Your task to perform on an android device: open sync settings in chrome Image 0: 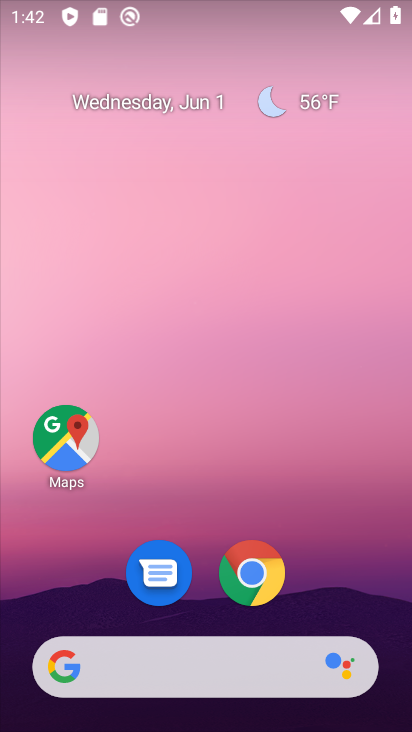
Step 0: drag from (352, 598) to (241, 0)
Your task to perform on an android device: open sync settings in chrome Image 1: 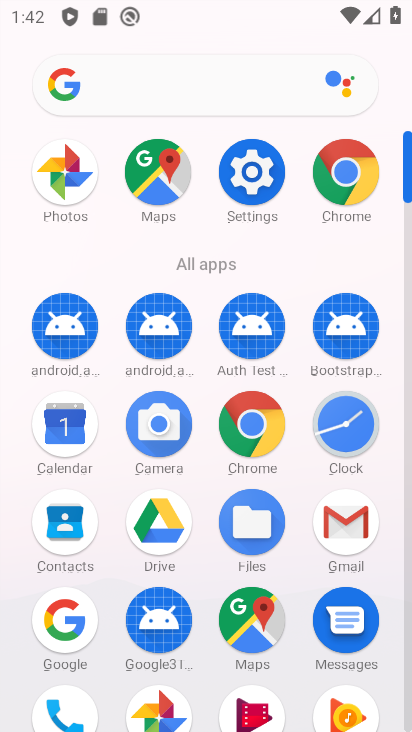
Step 1: click (343, 187)
Your task to perform on an android device: open sync settings in chrome Image 2: 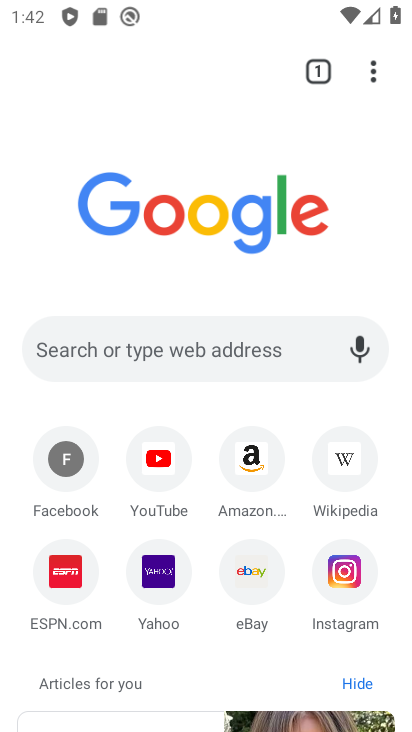
Step 2: drag from (376, 68) to (191, 616)
Your task to perform on an android device: open sync settings in chrome Image 3: 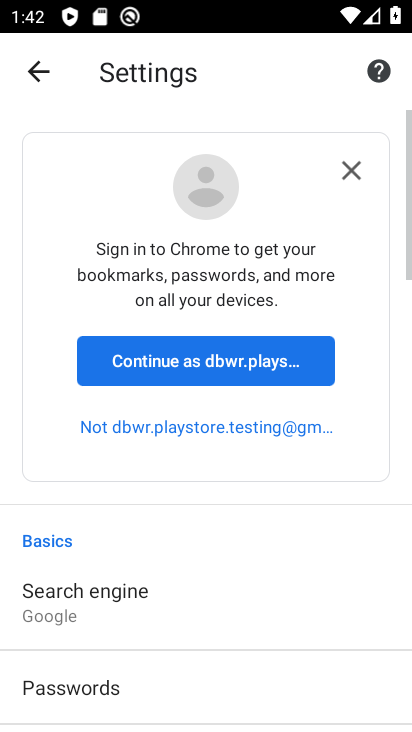
Step 3: drag from (191, 614) to (126, 170)
Your task to perform on an android device: open sync settings in chrome Image 4: 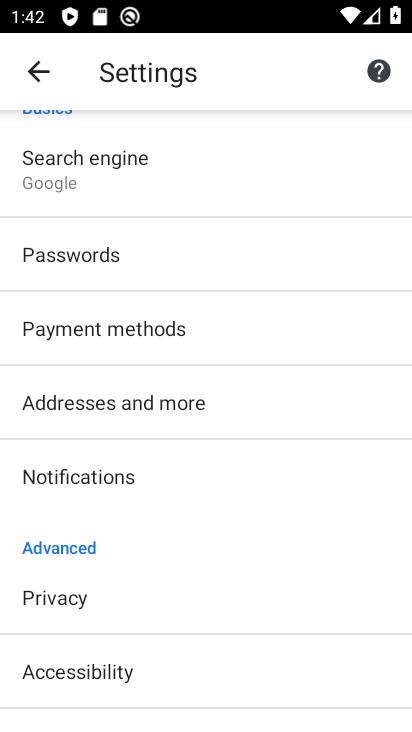
Step 4: drag from (187, 635) to (127, 173)
Your task to perform on an android device: open sync settings in chrome Image 5: 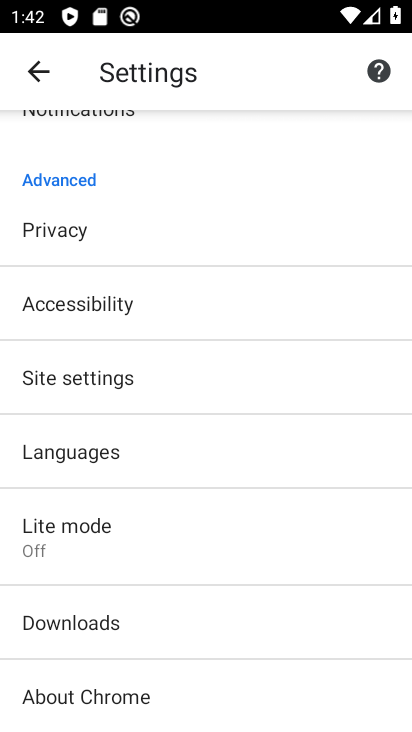
Step 5: click (142, 390)
Your task to perform on an android device: open sync settings in chrome Image 6: 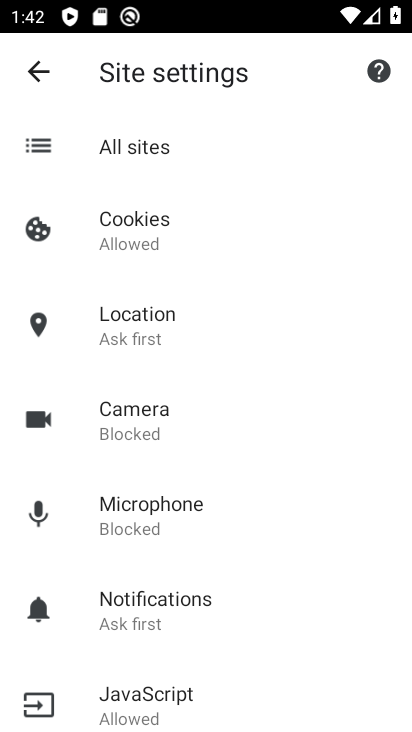
Step 6: drag from (231, 670) to (234, 228)
Your task to perform on an android device: open sync settings in chrome Image 7: 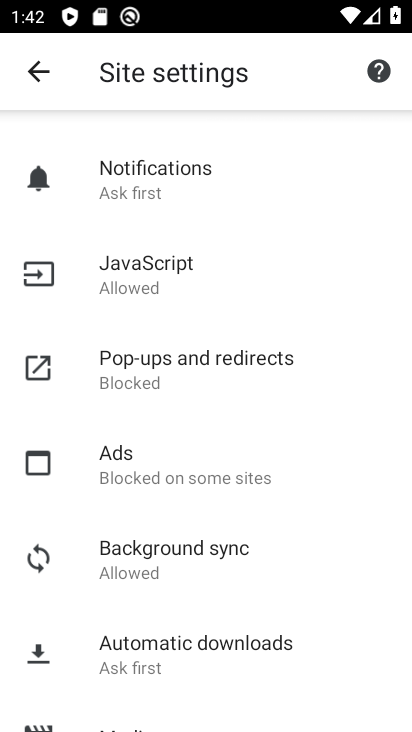
Step 7: click (220, 555)
Your task to perform on an android device: open sync settings in chrome Image 8: 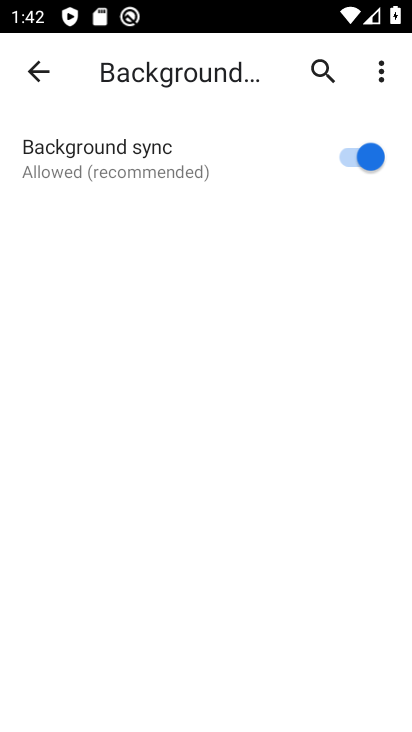
Step 8: task complete